Your task to perform on an android device: Go to privacy settings Image 0: 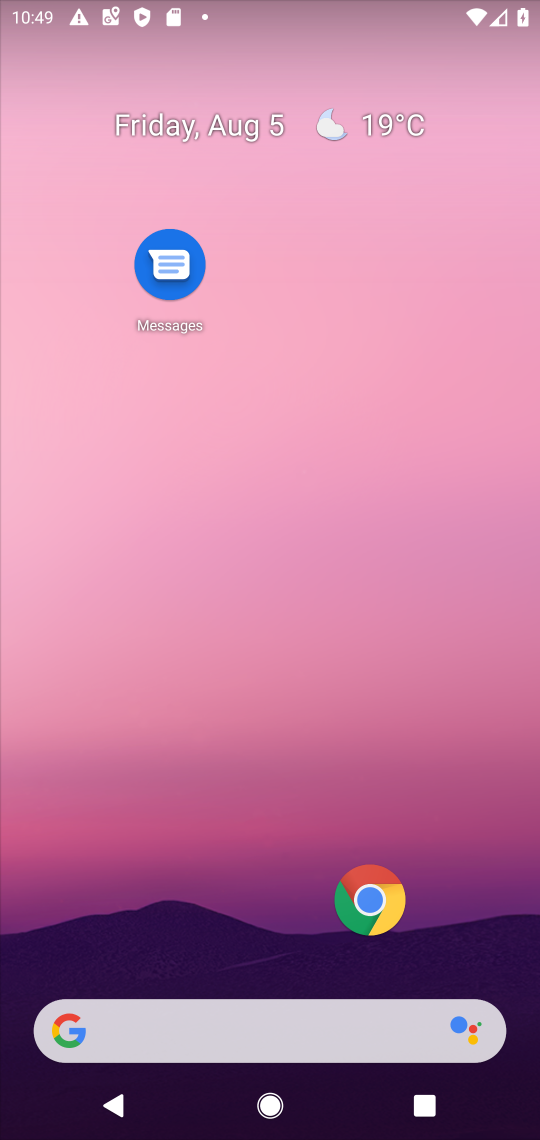
Step 0: drag from (101, 968) to (68, 104)
Your task to perform on an android device: Go to privacy settings Image 1: 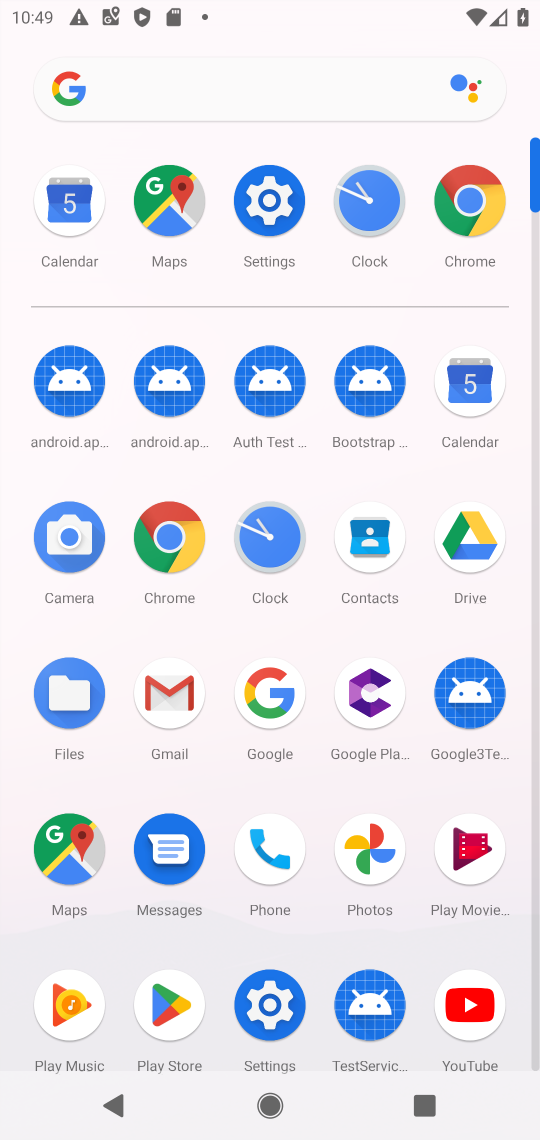
Step 1: click (286, 1040)
Your task to perform on an android device: Go to privacy settings Image 2: 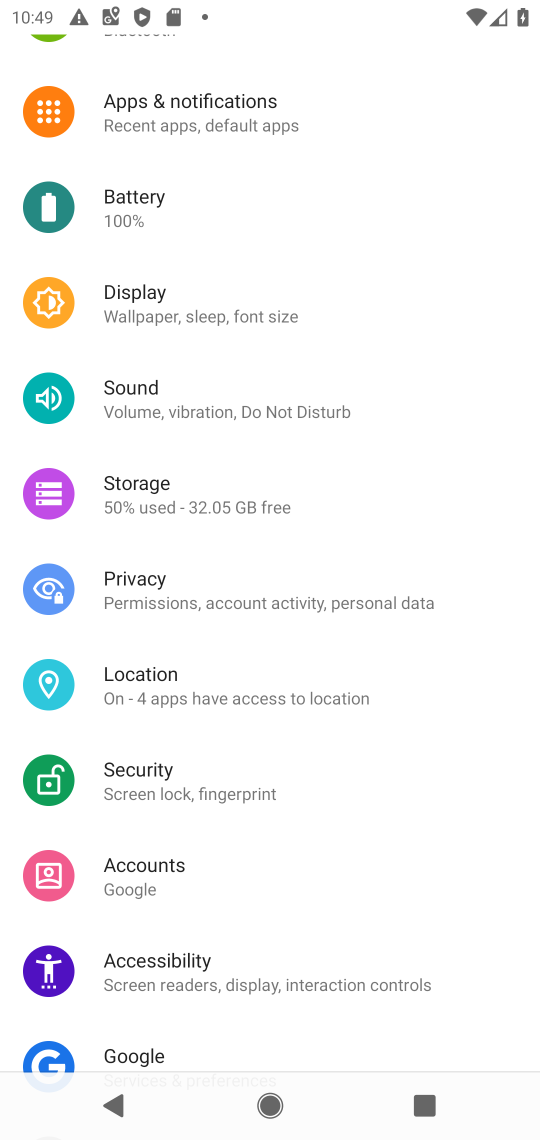
Step 2: click (116, 576)
Your task to perform on an android device: Go to privacy settings Image 3: 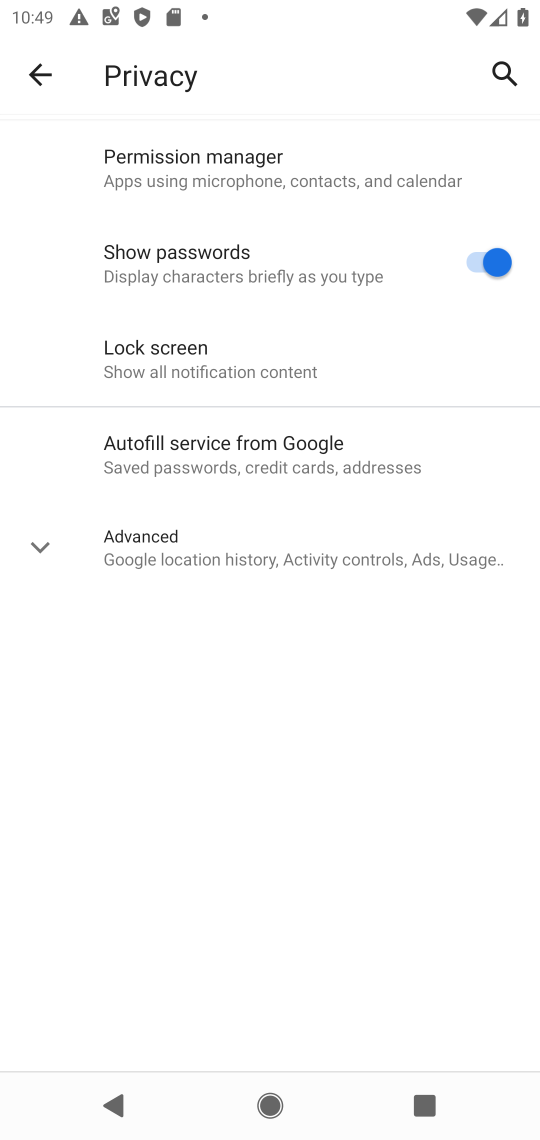
Step 3: task complete